Your task to perform on an android device: Open settings on Google Maps Image 0: 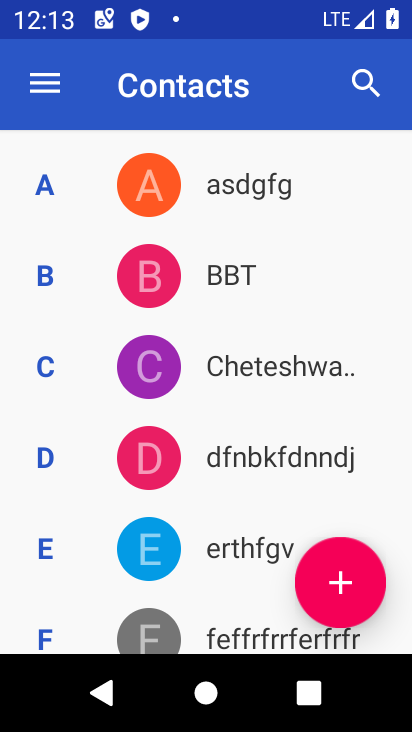
Step 0: press home button
Your task to perform on an android device: Open settings on Google Maps Image 1: 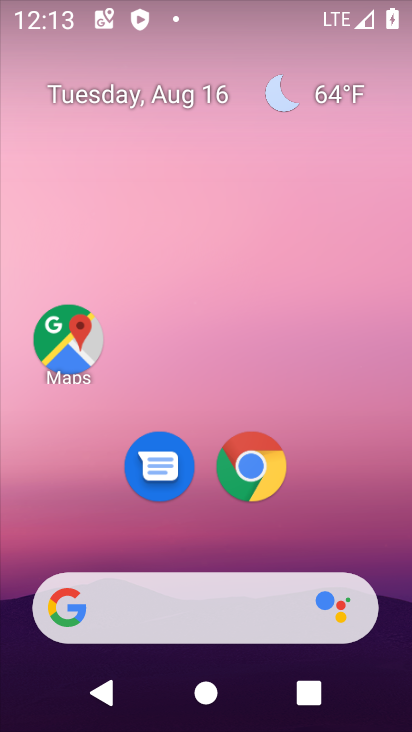
Step 1: drag from (138, 496) to (141, 160)
Your task to perform on an android device: Open settings on Google Maps Image 2: 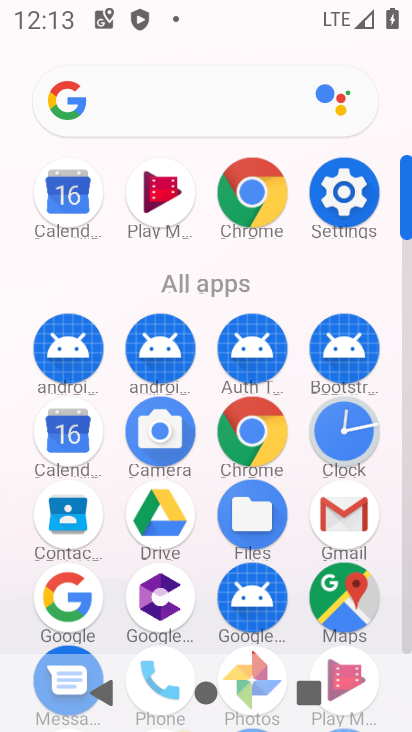
Step 2: click (337, 581)
Your task to perform on an android device: Open settings on Google Maps Image 3: 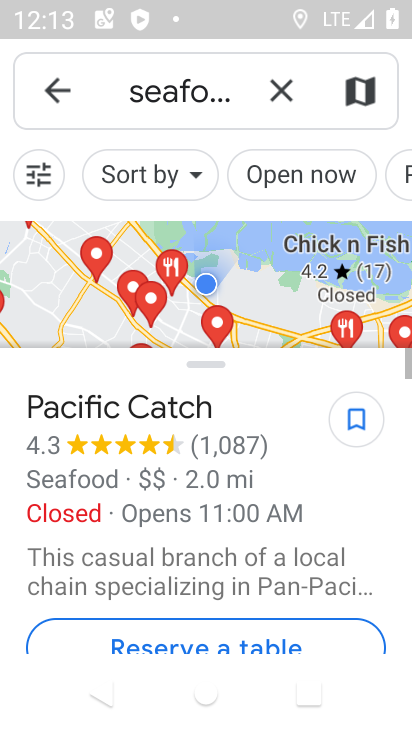
Step 3: click (275, 92)
Your task to perform on an android device: Open settings on Google Maps Image 4: 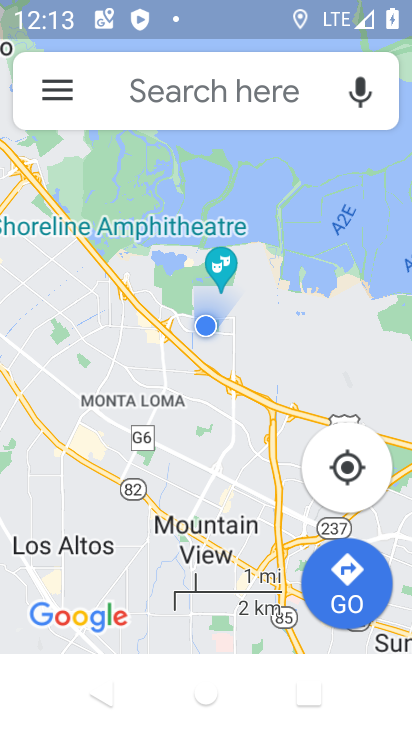
Step 4: click (58, 82)
Your task to perform on an android device: Open settings on Google Maps Image 5: 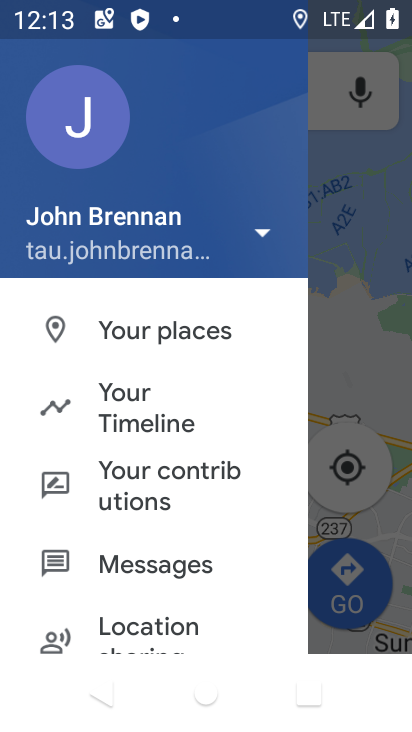
Step 5: drag from (154, 625) to (199, 100)
Your task to perform on an android device: Open settings on Google Maps Image 6: 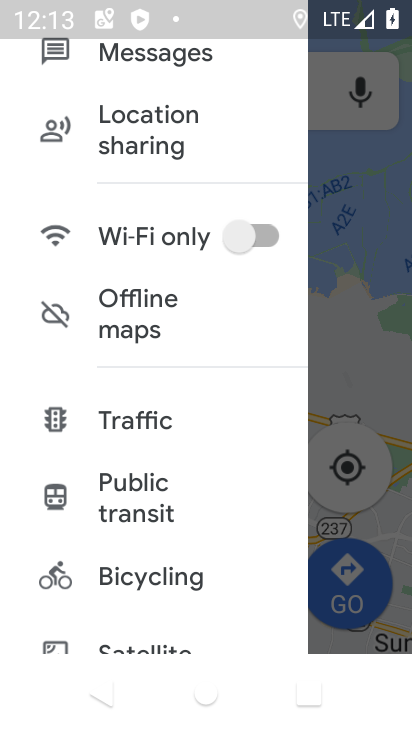
Step 6: drag from (135, 634) to (196, 123)
Your task to perform on an android device: Open settings on Google Maps Image 7: 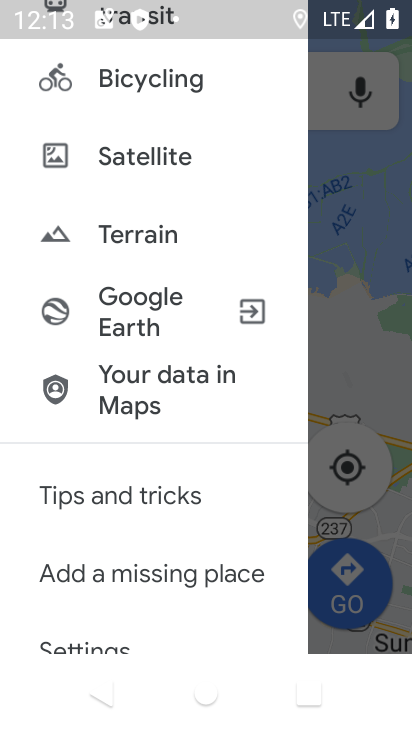
Step 7: drag from (111, 523) to (140, 280)
Your task to perform on an android device: Open settings on Google Maps Image 8: 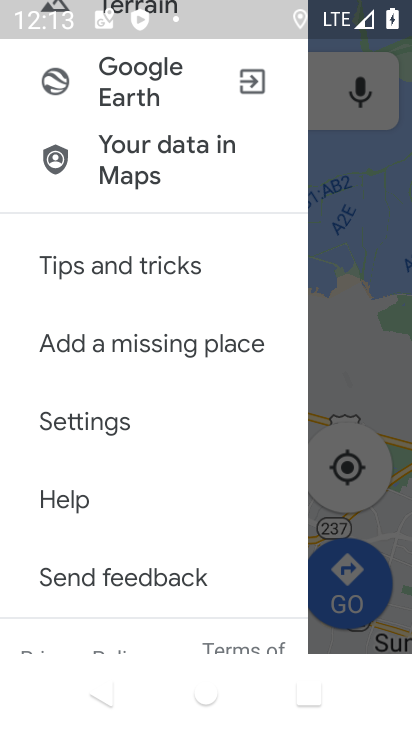
Step 8: click (91, 434)
Your task to perform on an android device: Open settings on Google Maps Image 9: 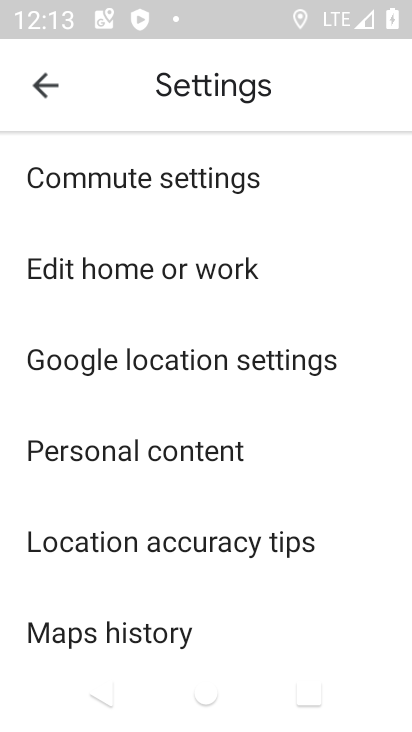
Step 9: task complete